Your task to perform on an android device: visit the assistant section in the google photos Image 0: 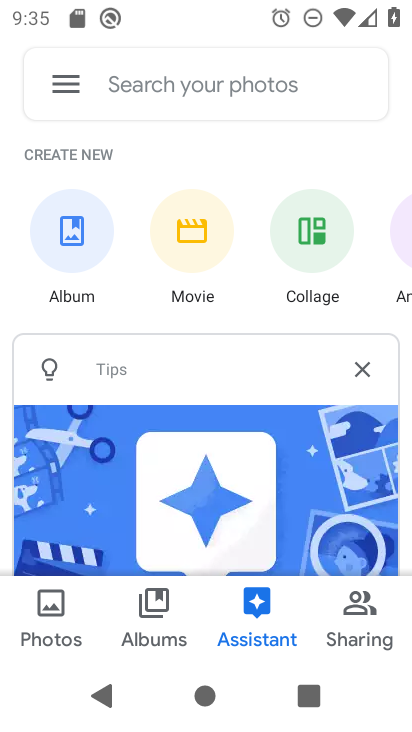
Step 0: task complete